Your task to perform on an android device: Open display settings Image 0: 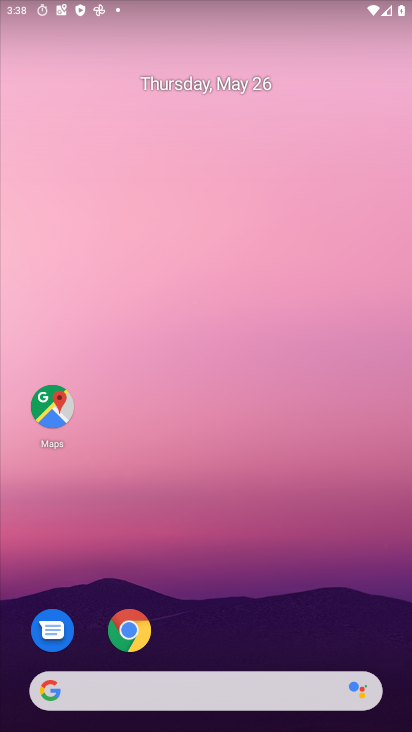
Step 0: click (223, 642)
Your task to perform on an android device: Open display settings Image 1: 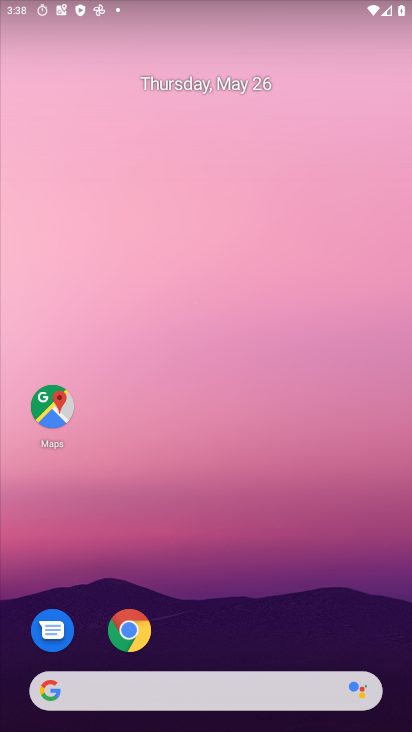
Step 1: drag from (218, 628) to (193, 3)
Your task to perform on an android device: Open display settings Image 2: 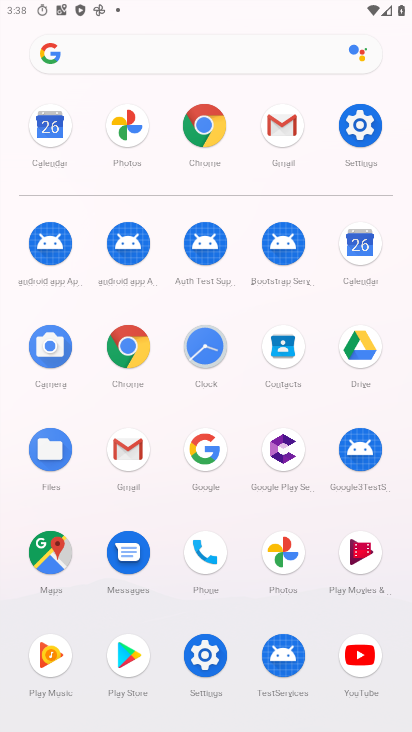
Step 2: click (361, 144)
Your task to perform on an android device: Open display settings Image 3: 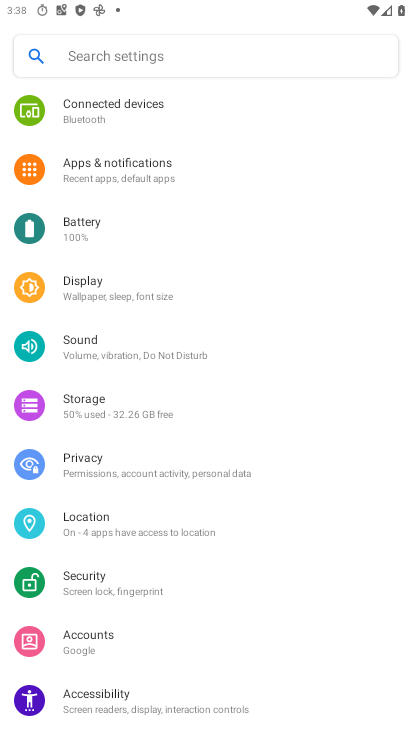
Step 3: click (99, 280)
Your task to perform on an android device: Open display settings Image 4: 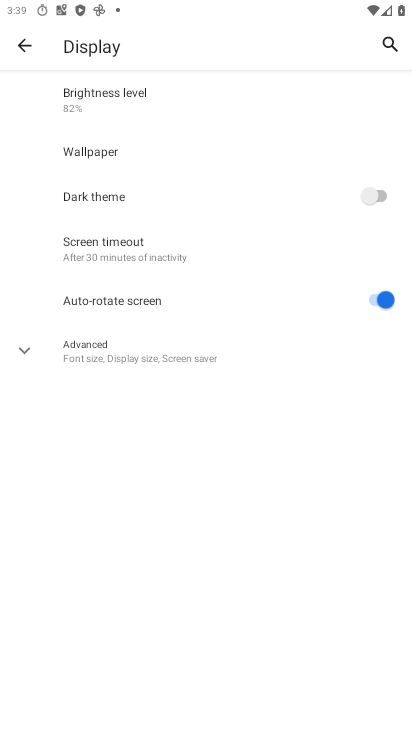
Step 4: task complete